Your task to perform on an android device: Go to internet settings Image 0: 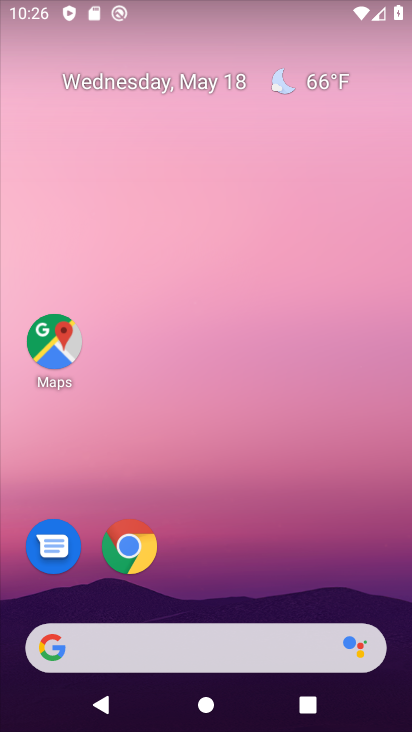
Step 0: drag from (236, 14) to (282, 556)
Your task to perform on an android device: Go to internet settings Image 1: 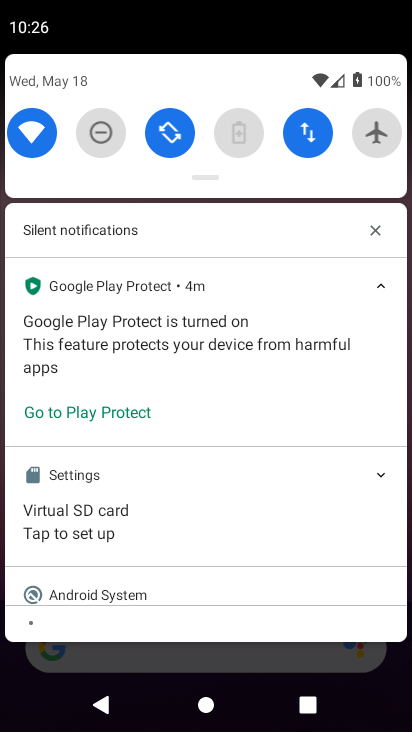
Step 1: click (302, 144)
Your task to perform on an android device: Go to internet settings Image 2: 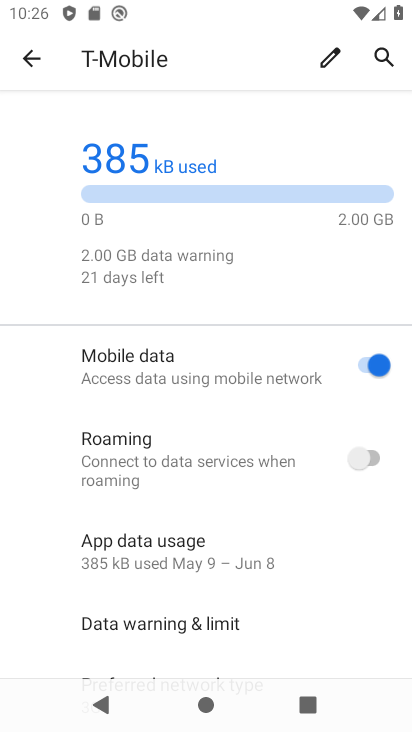
Step 2: task complete